Your task to perform on an android device: Is it going to rain today? Image 0: 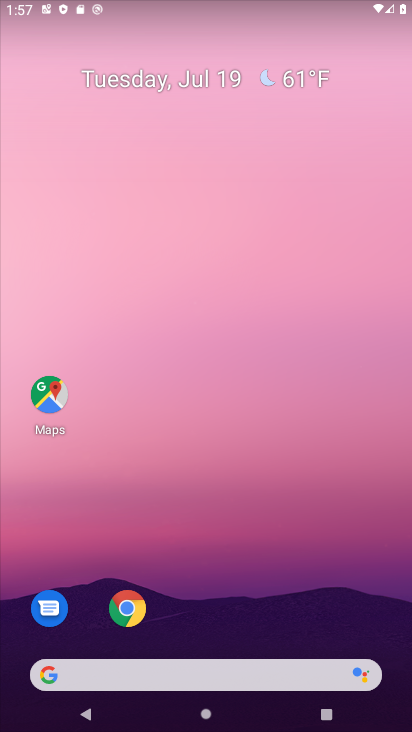
Step 0: drag from (261, 548) to (258, 91)
Your task to perform on an android device: Is it going to rain today? Image 1: 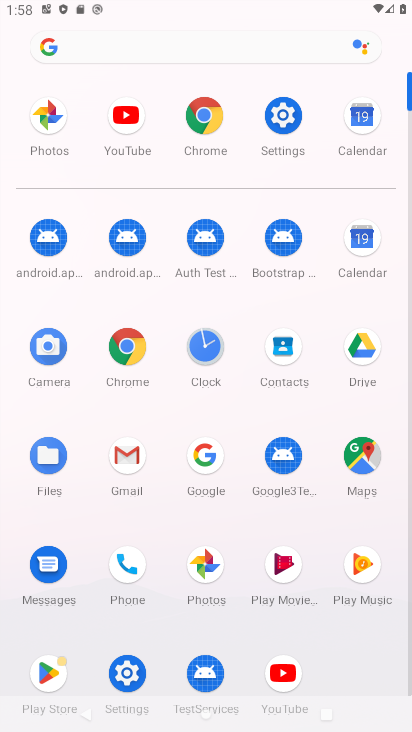
Step 1: click (210, 454)
Your task to perform on an android device: Is it going to rain today? Image 2: 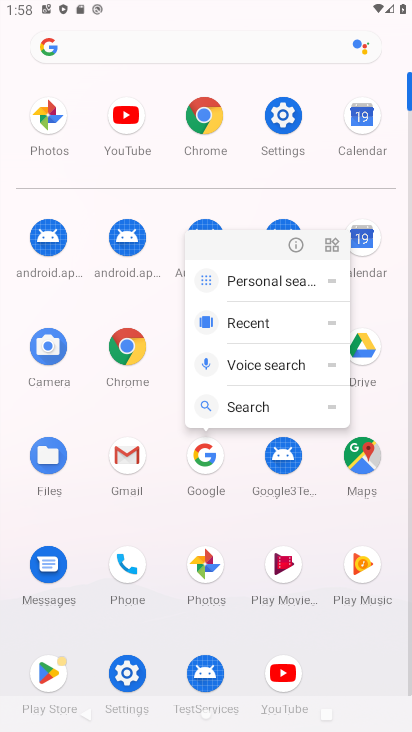
Step 2: click (210, 453)
Your task to perform on an android device: Is it going to rain today? Image 3: 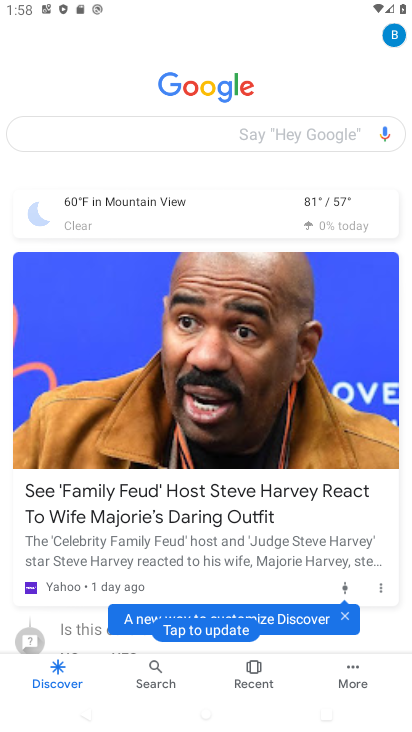
Step 3: click (105, 199)
Your task to perform on an android device: Is it going to rain today? Image 4: 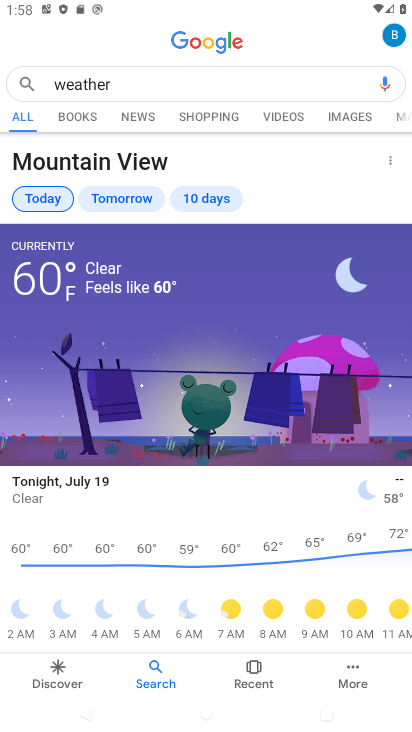
Step 4: task complete